Your task to perform on an android device: open device folders in google photos Image 0: 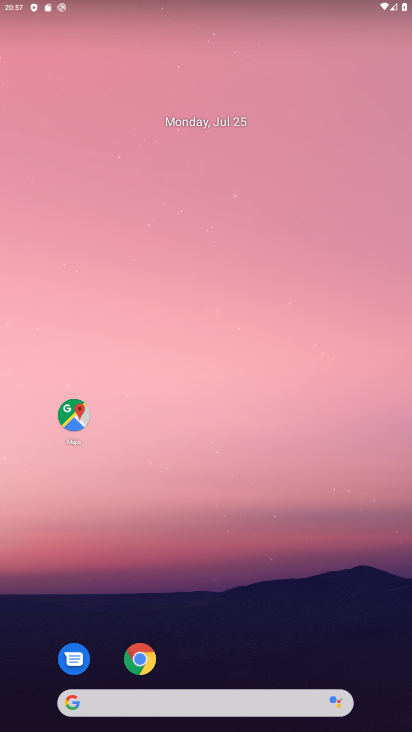
Step 0: drag from (200, 649) to (215, 222)
Your task to perform on an android device: open device folders in google photos Image 1: 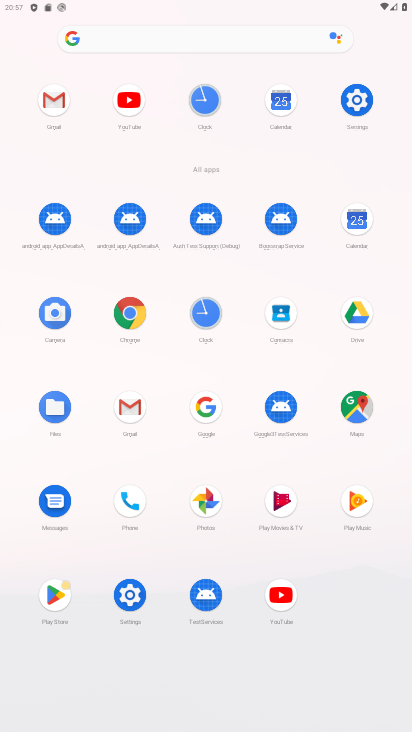
Step 1: click (213, 512)
Your task to perform on an android device: open device folders in google photos Image 2: 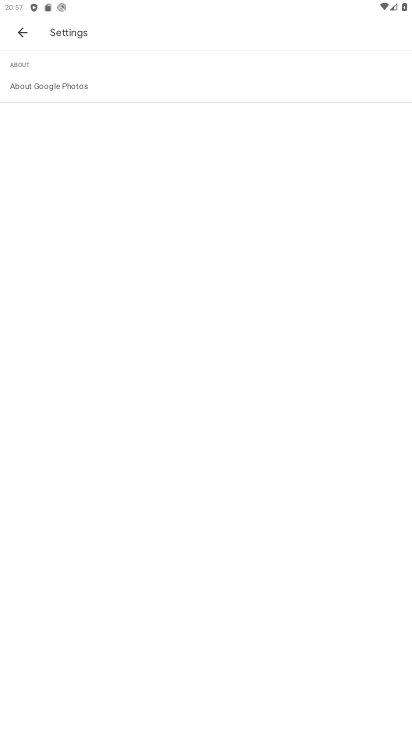
Step 2: click (29, 38)
Your task to perform on an android device: open device folders in google photos Image 3: 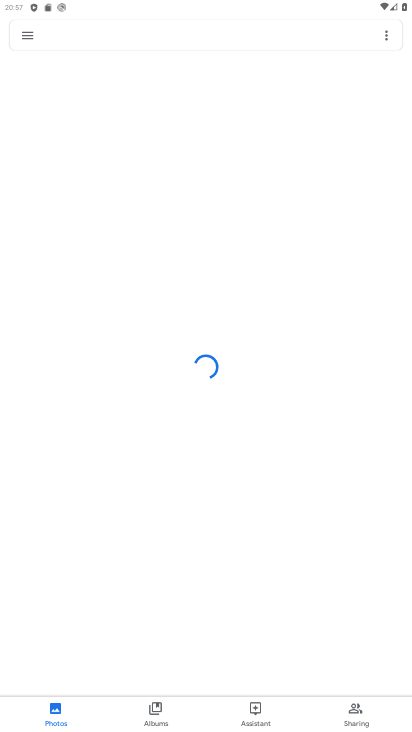
Step 3: click (29, 38)
Your task to perform on an android device: open device folders in google photos Image 4: 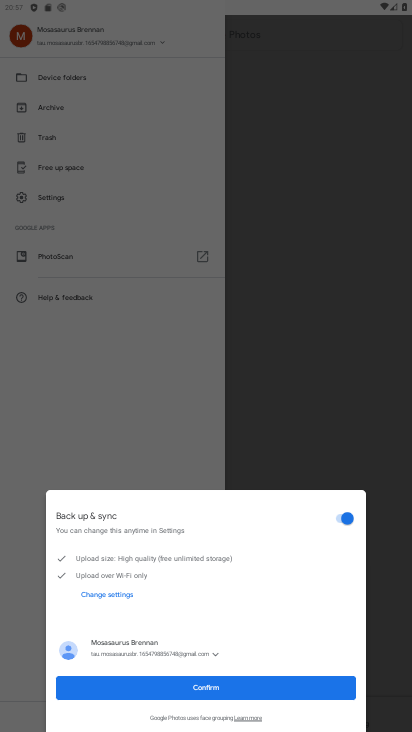
Step 4: click (171, 692)
Your task to perform on an android device: open device folders in google photos Image 5: 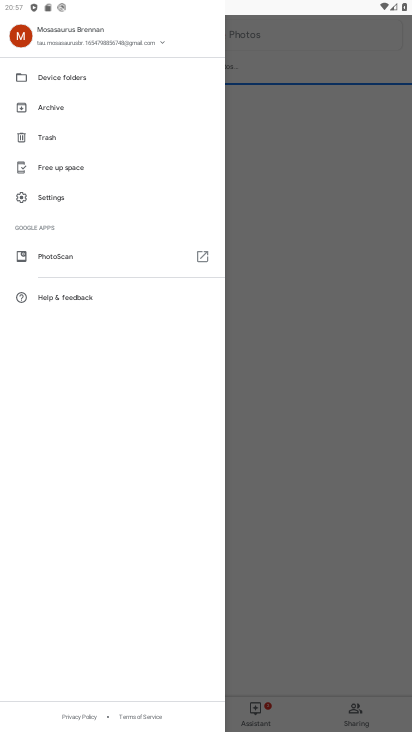
Step 5: click (64, 83)
Your task to perform on an android device: open device folders in google photos Image 6: 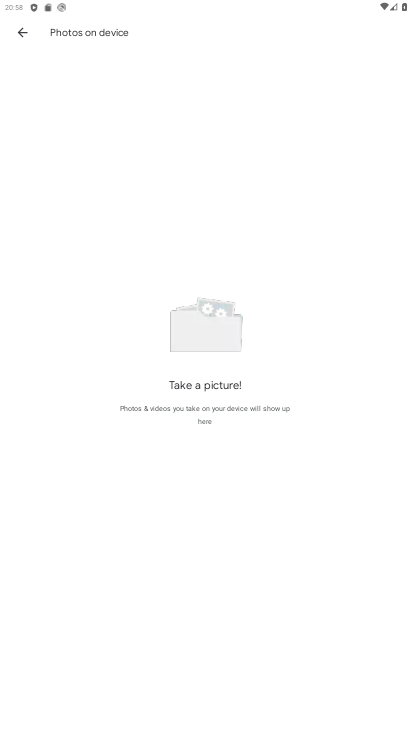
Step 6: task complete